Your task to perform on an android device: Check the weather Image 0: 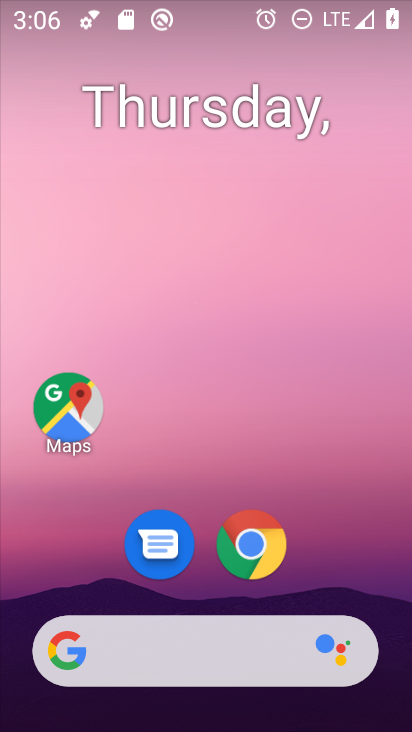
Step 0: drag from (343, 373) to (311, 162)
Your task to perform on an android device: Check the weather Image 1: 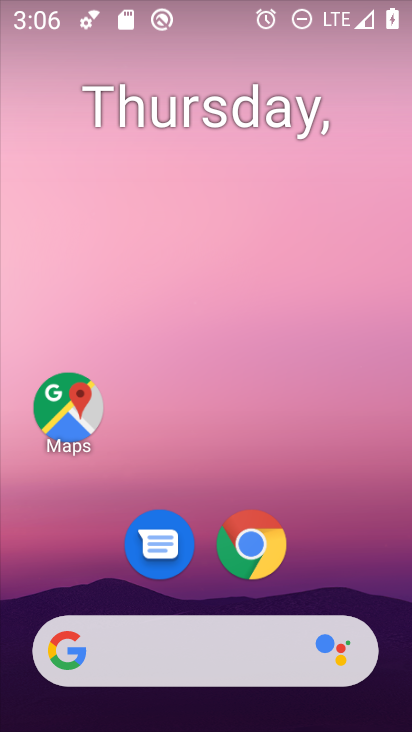
Step 1: drag from (349, 575) to (333, 47)
Your task to perform on an android device: Check the weather Image 2: 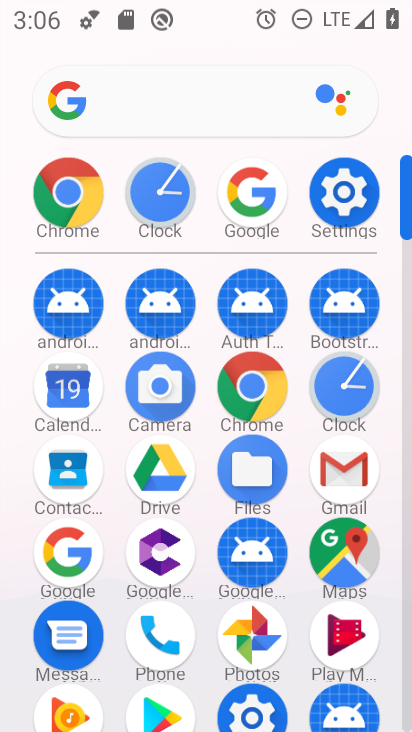
Step 2: click (75, 569)
Your task to perform on an android device: Check the weather Image 3: 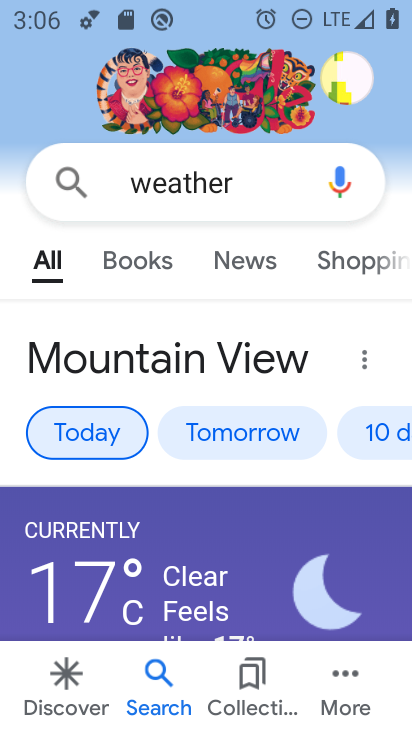
Step 3: task complete